Your task to perform on an android device: set the stopwatch Image 0: 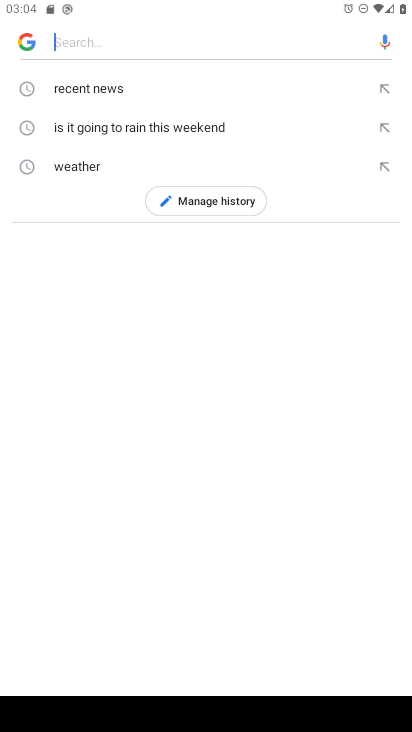
Step 0: press home button
Your task to perform on an android device: set the stopwatch Image 1: 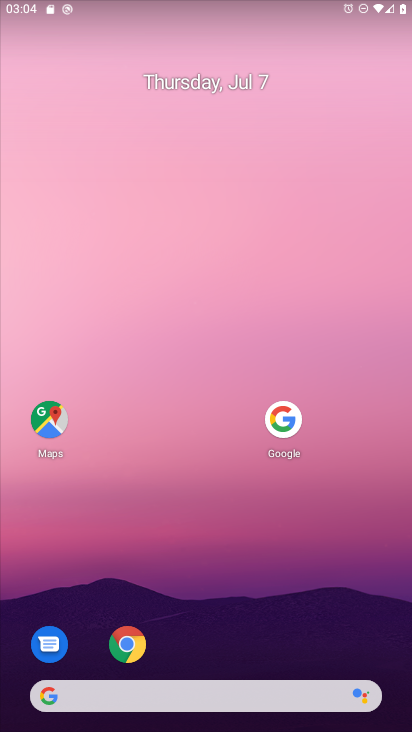
Step 1: drag from (152, 690) to (305, 73)
Your task to perform on an android device: set the stopwatch Image 2: 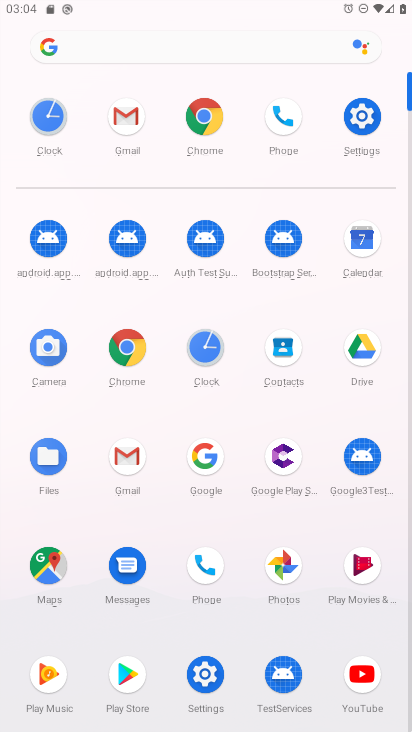
Step 2: click (198, 352)
Your task to perform on an android device: set the stopwatch Image 3: 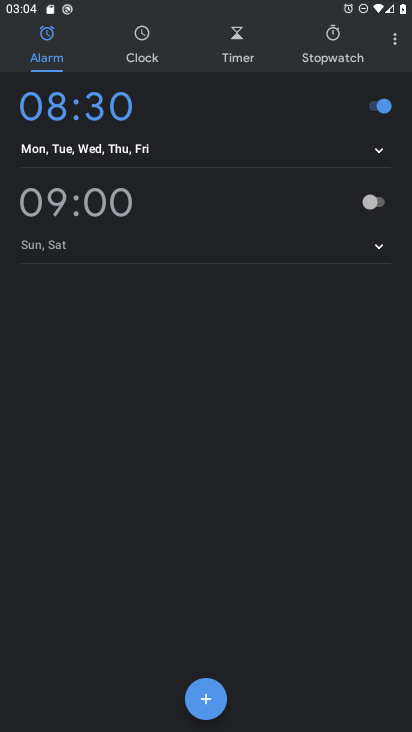
Step 3: click (323, 50)
Your task to perform on an android device: set the stopwatch Image 4: 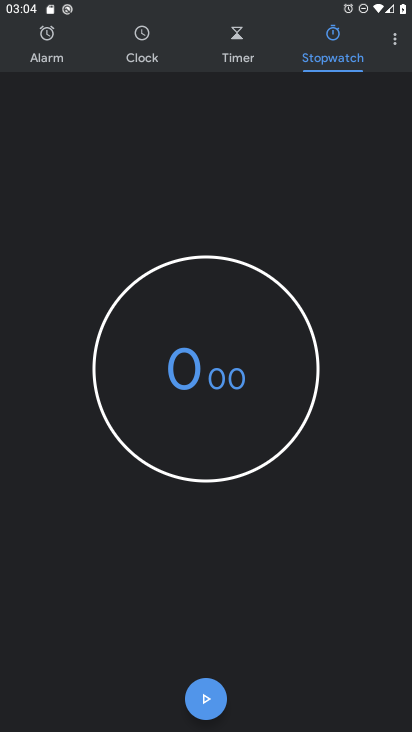
Step 4: click (215, 376)
Your task to perform on an android device: set the stopwatch Image 5: 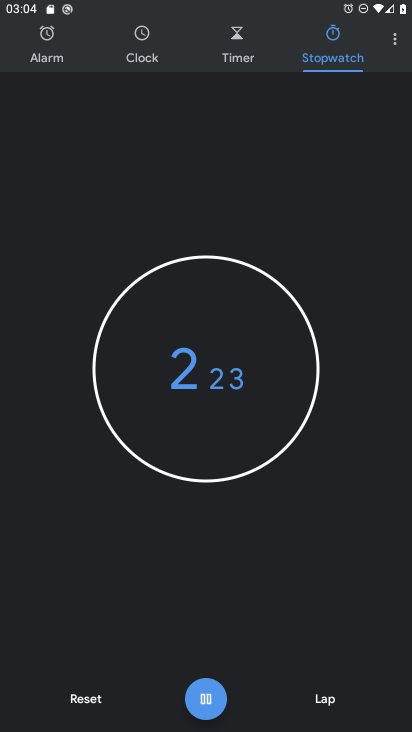
Step 5: click (209, 699)
Your task to perform on an android device: set the stopwatch Image 6: 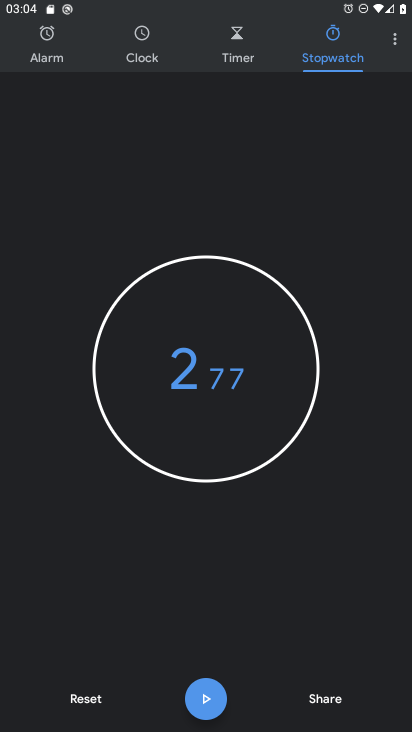
Step 6: task complete